Your task to perform on an android device: set default search engine in the chrome app Image 0: 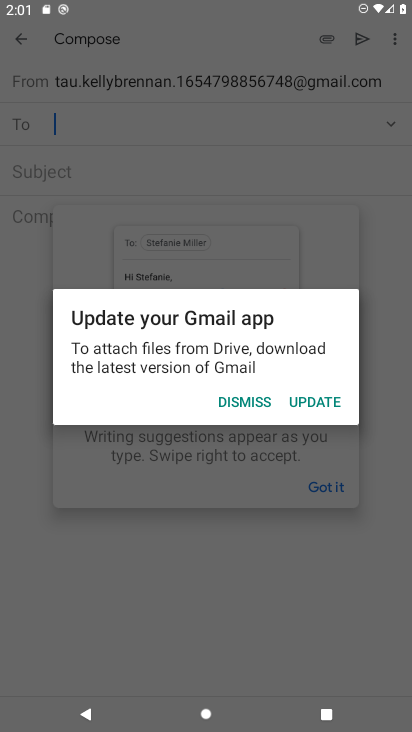
Step 0: press home button
Your task to perform on an android device: set default search engine in the chrome app Image 1: 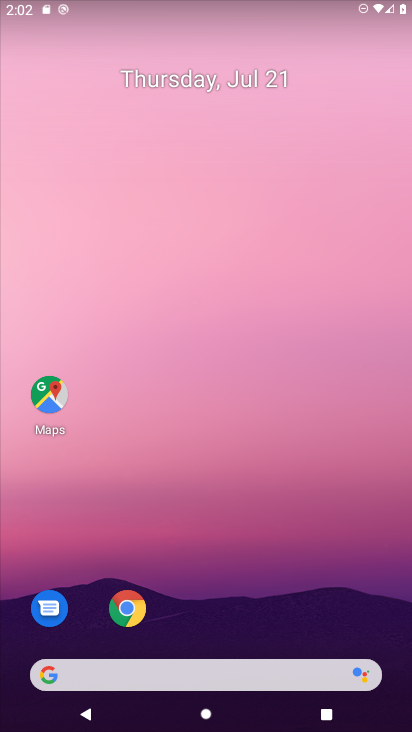
Step 1: click (133, 621)
Your task to perform on an android device: set default search engine in the chrome app Image 2: 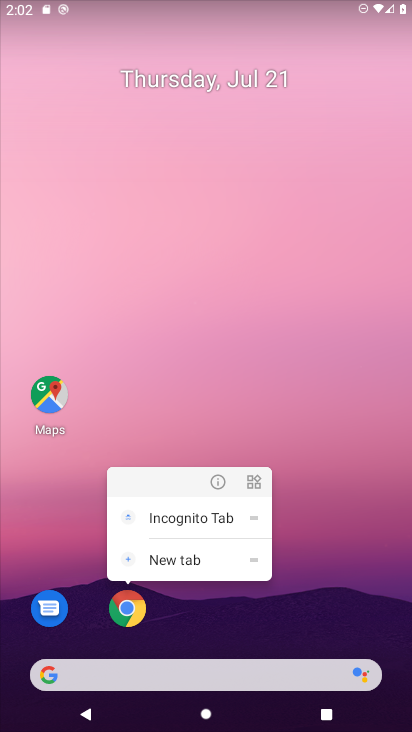
Step 2: click (133, 621)
Your task to perform on an android device: set default search engine in the chrome app Image 3: 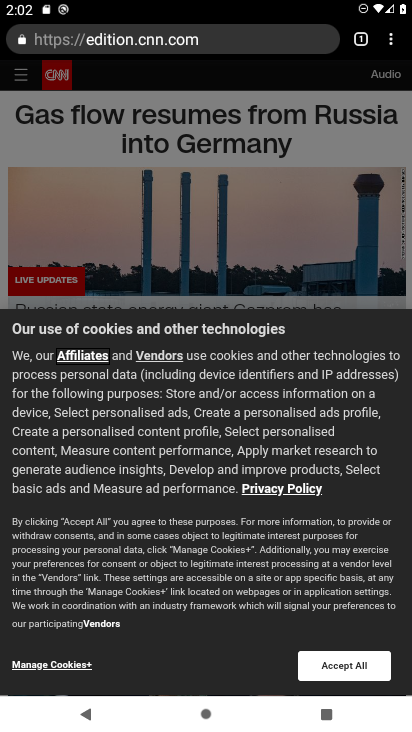
Step 3: click (389, 38)
Your task to perform on an android device: set default search engine in the chrome app Image 4: 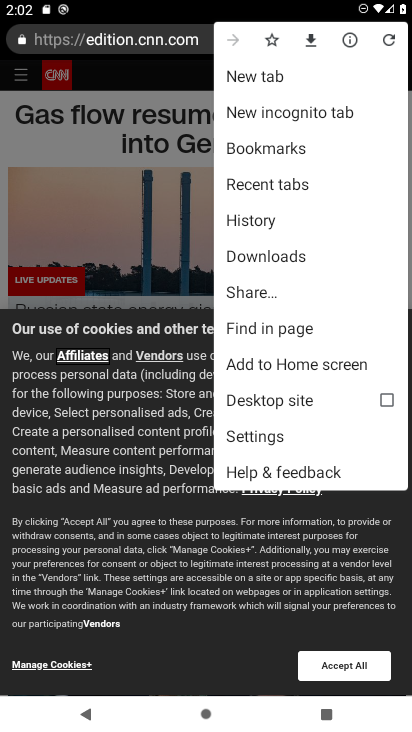
Step 4: click (278, 428)
Your task to perform on an android device: set default search engine in the chrome app Image 5: 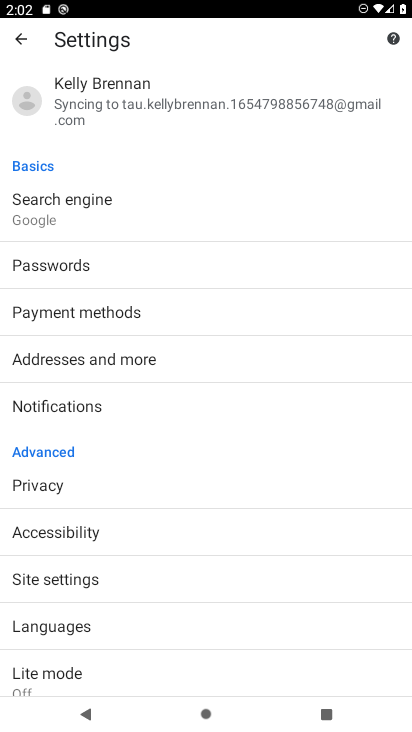
Step 5: click (48, 208)
Your task to perform on an android device: set default search engine in the chrome app Image 6: 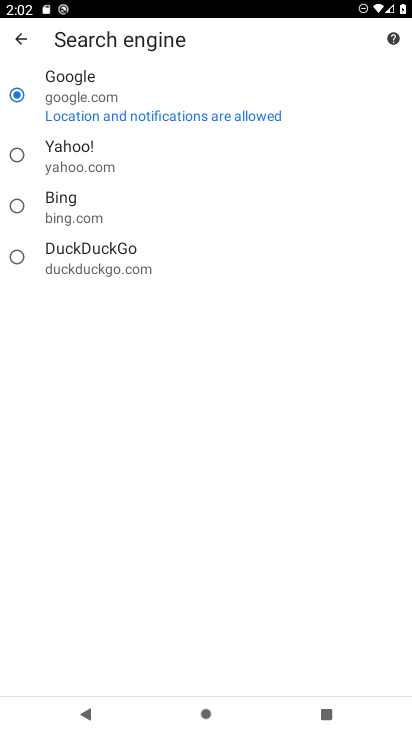
Step 6: task complete